Your task to perform on an android device: uninstall "Roku - Official Remote Control" Image 0: 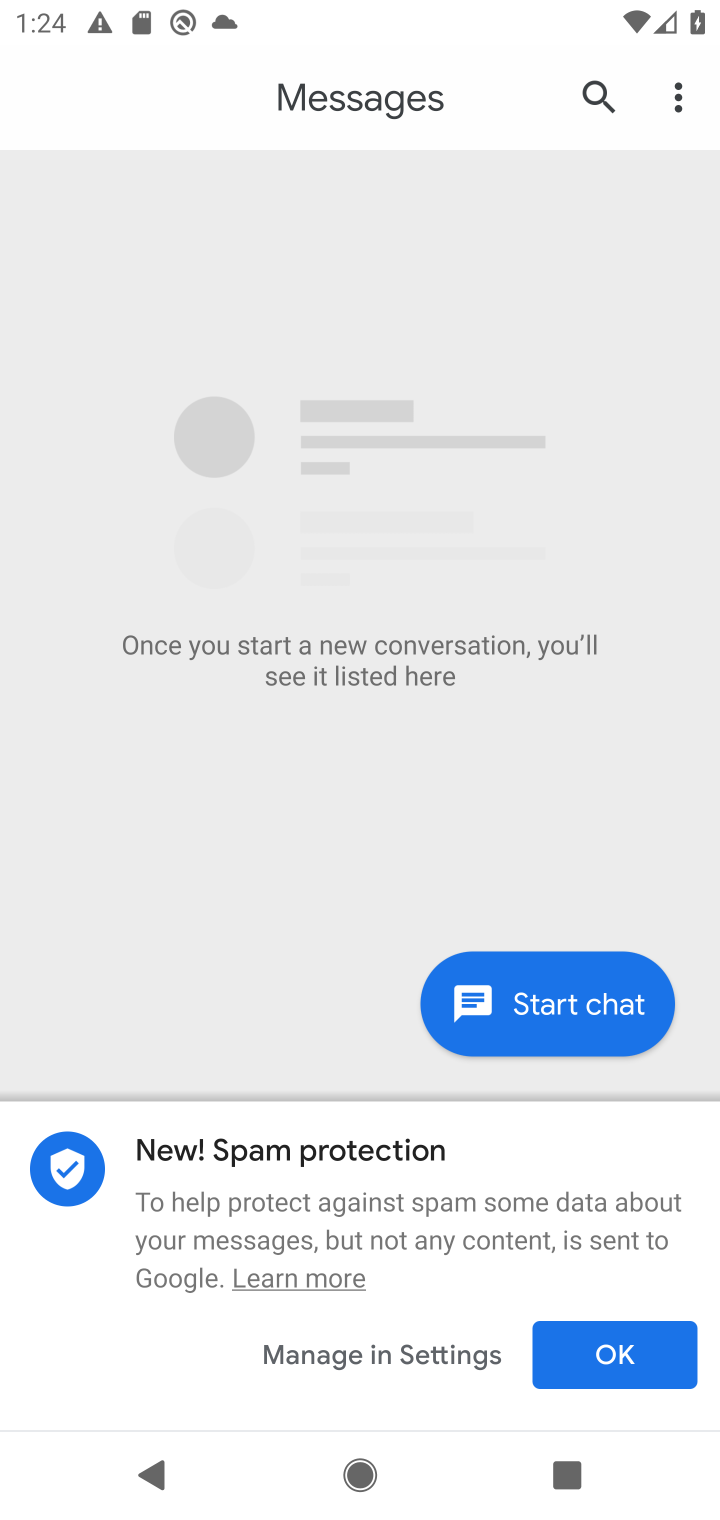
Step 0: press home button
Your task to perform on an android device: uninstall "Roku - Official Remote Control" Image 1: 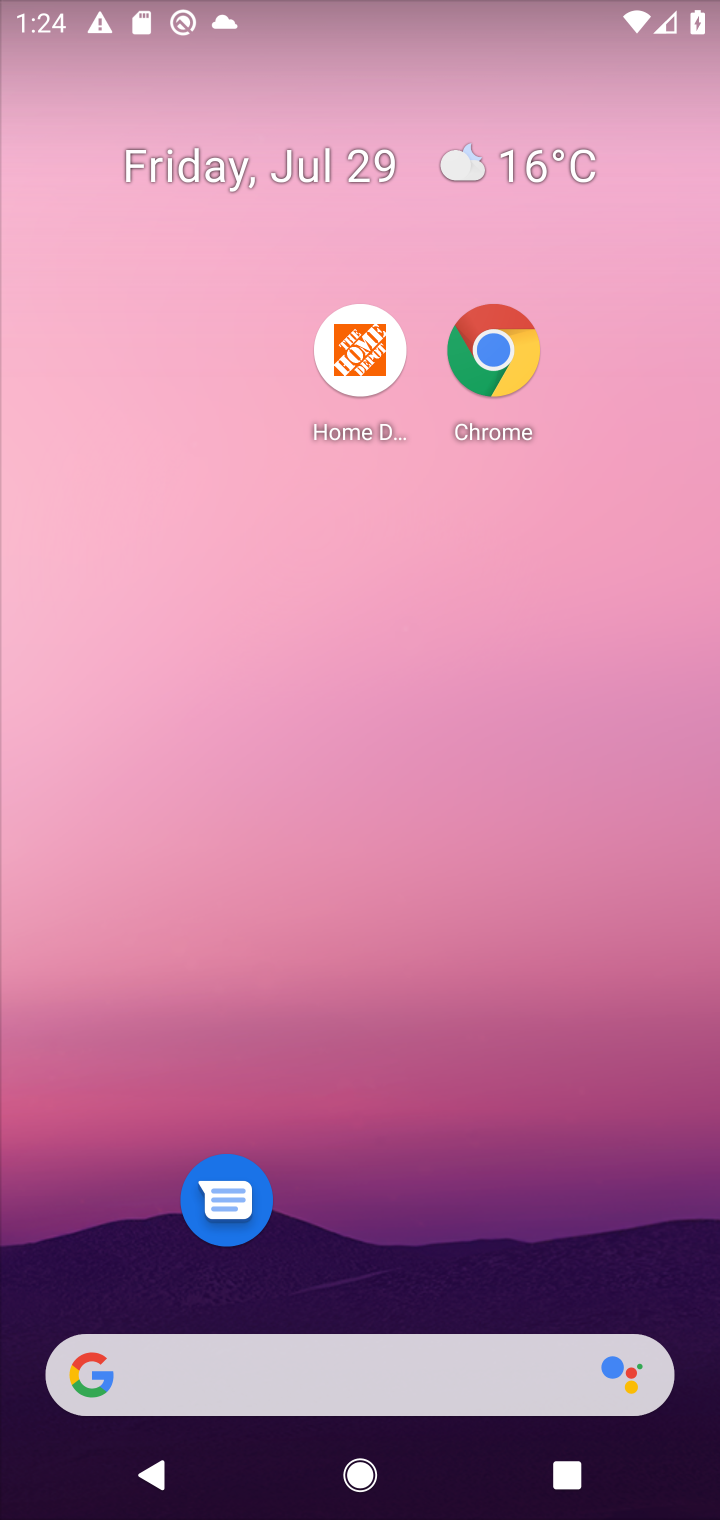
Step 1: drag from (520, 1209) to (585, 16)
Your task to perform on an android device: uninstall "Roku - Official Remote Control" Image 2: 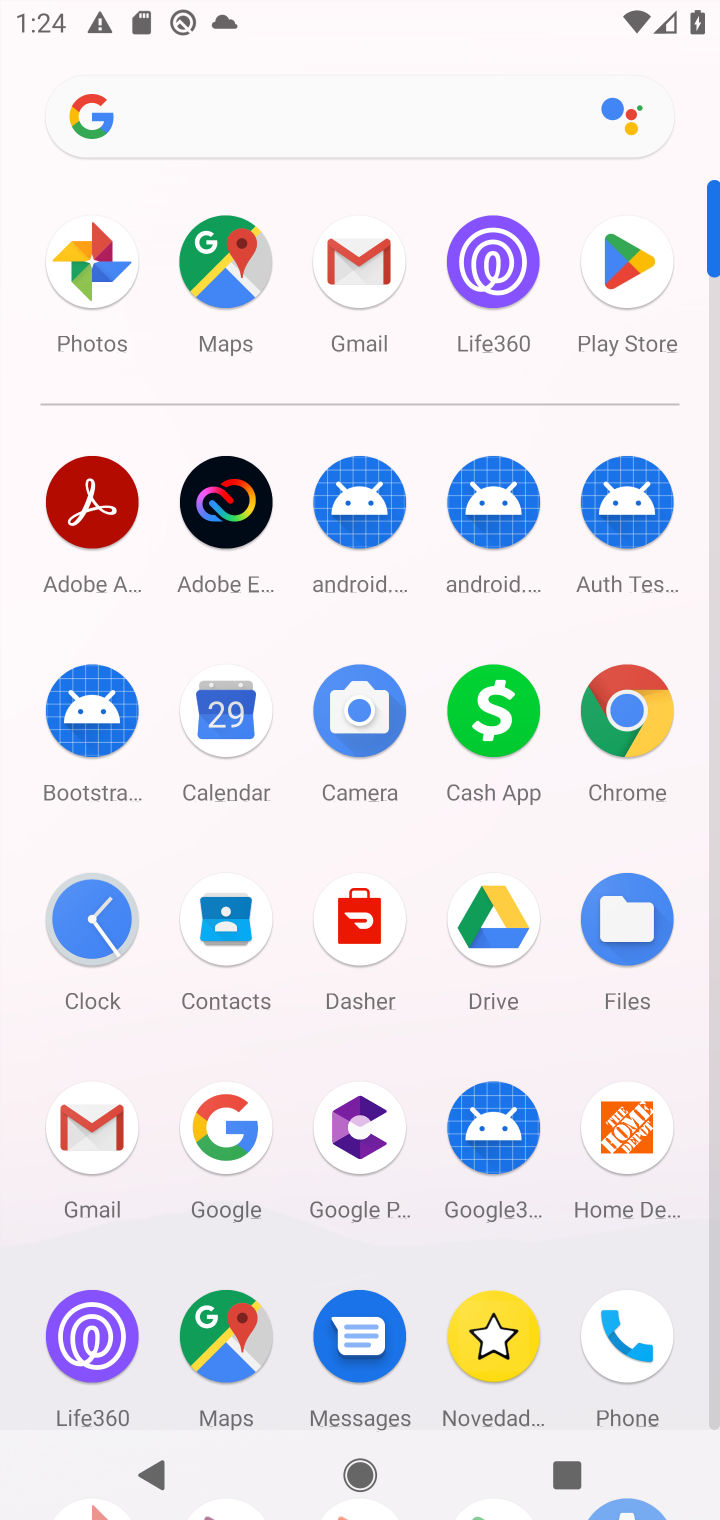
Step 2: click (624, 264)
Your task to perform on an android device: uninstall "Roku - Official Remote Control" Image 3: 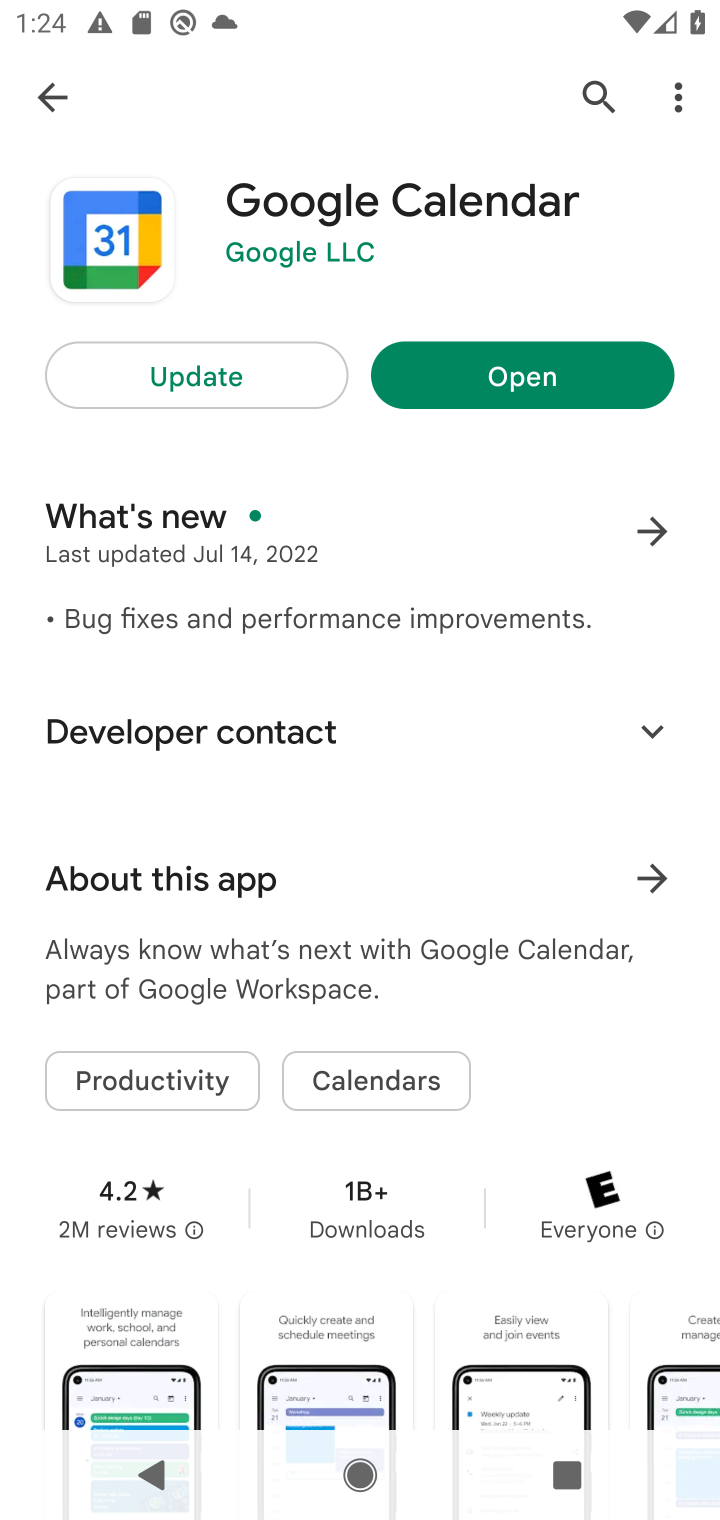
Step 3: click (604, 102)
Your task to perform on an android device: uninstall "Roku - Official Remote Control" Image 4: 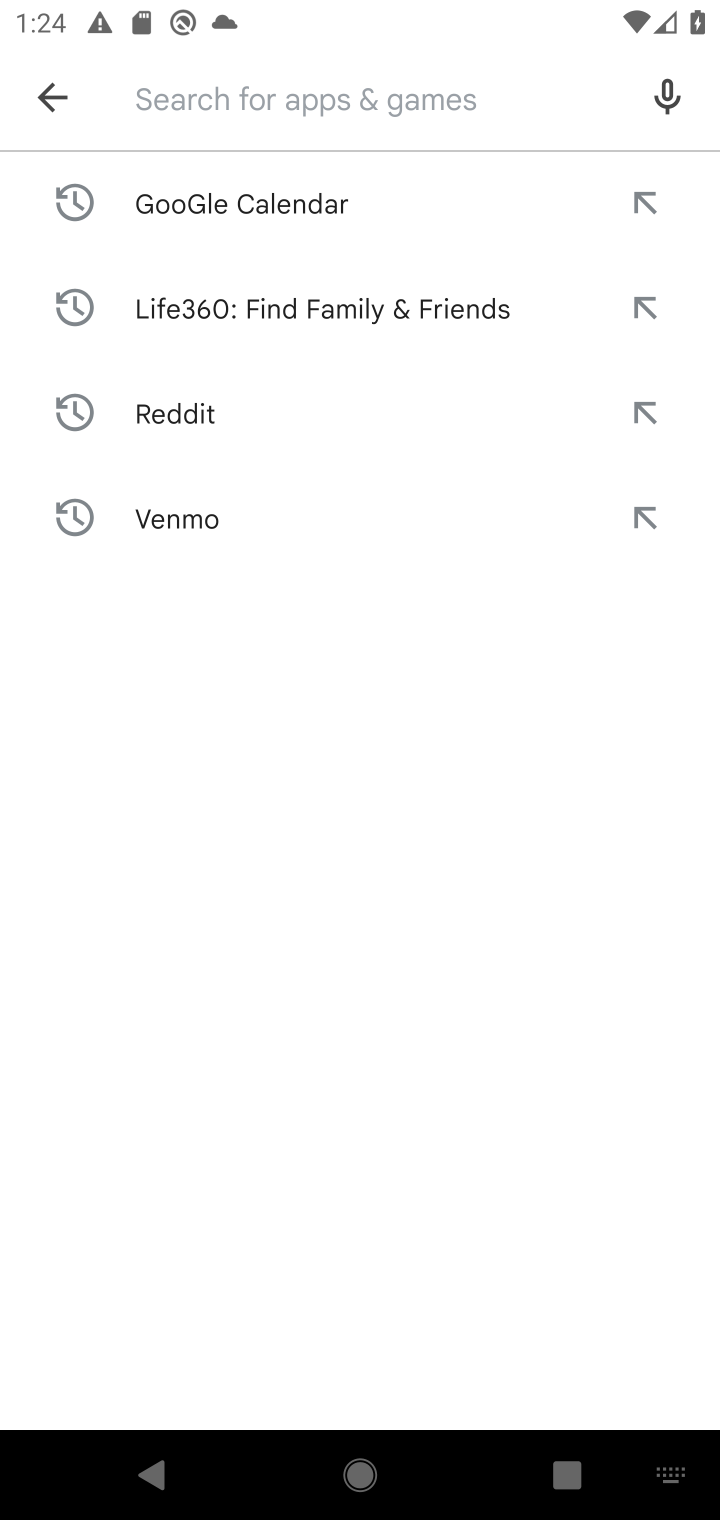
Step 4: click (496, 87)
Your task to perform on an android device: uninstall "Roku - Official Remote Control" Image 5: 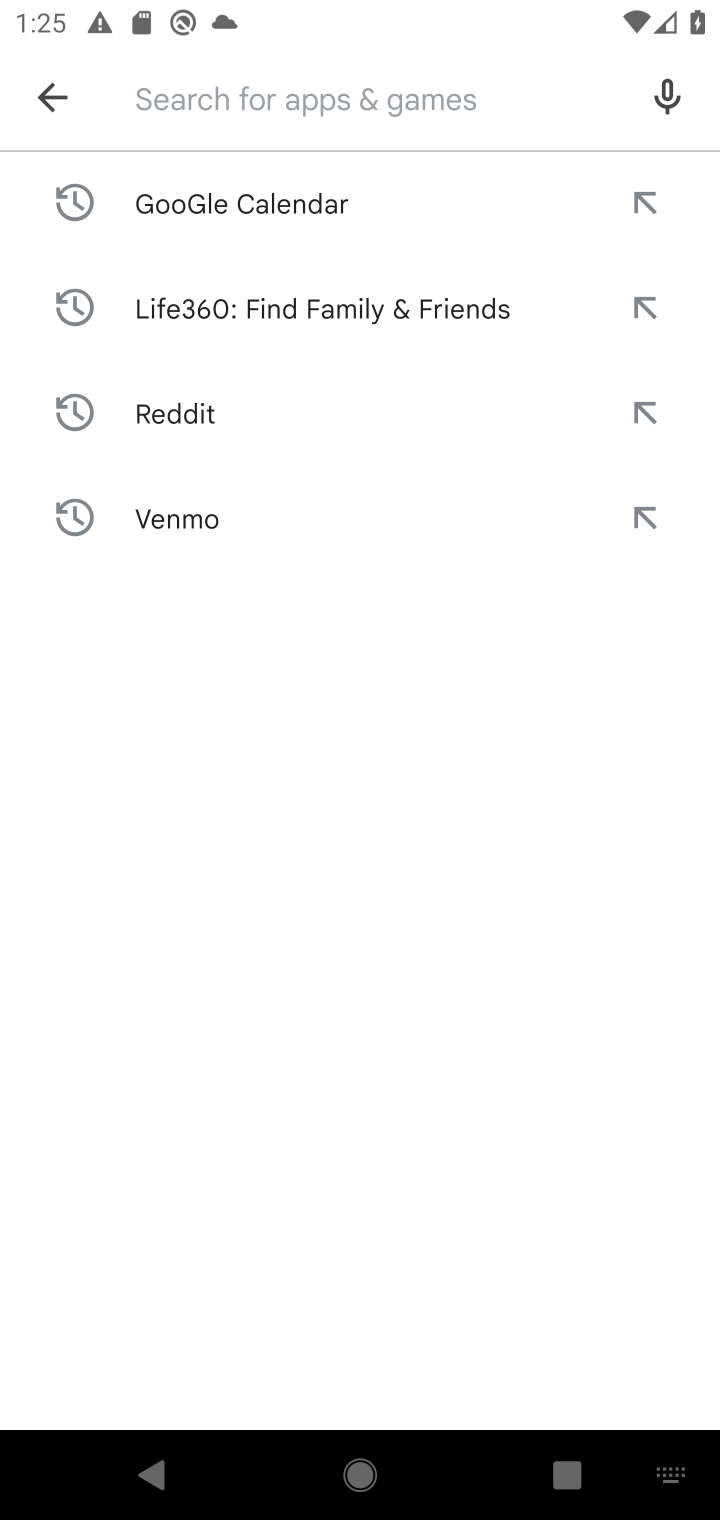
Step 5: type "Roku - Official Remote Control"
Your task to perform on an android device: uninstall "Roku - Official Remote Control" Image 6: 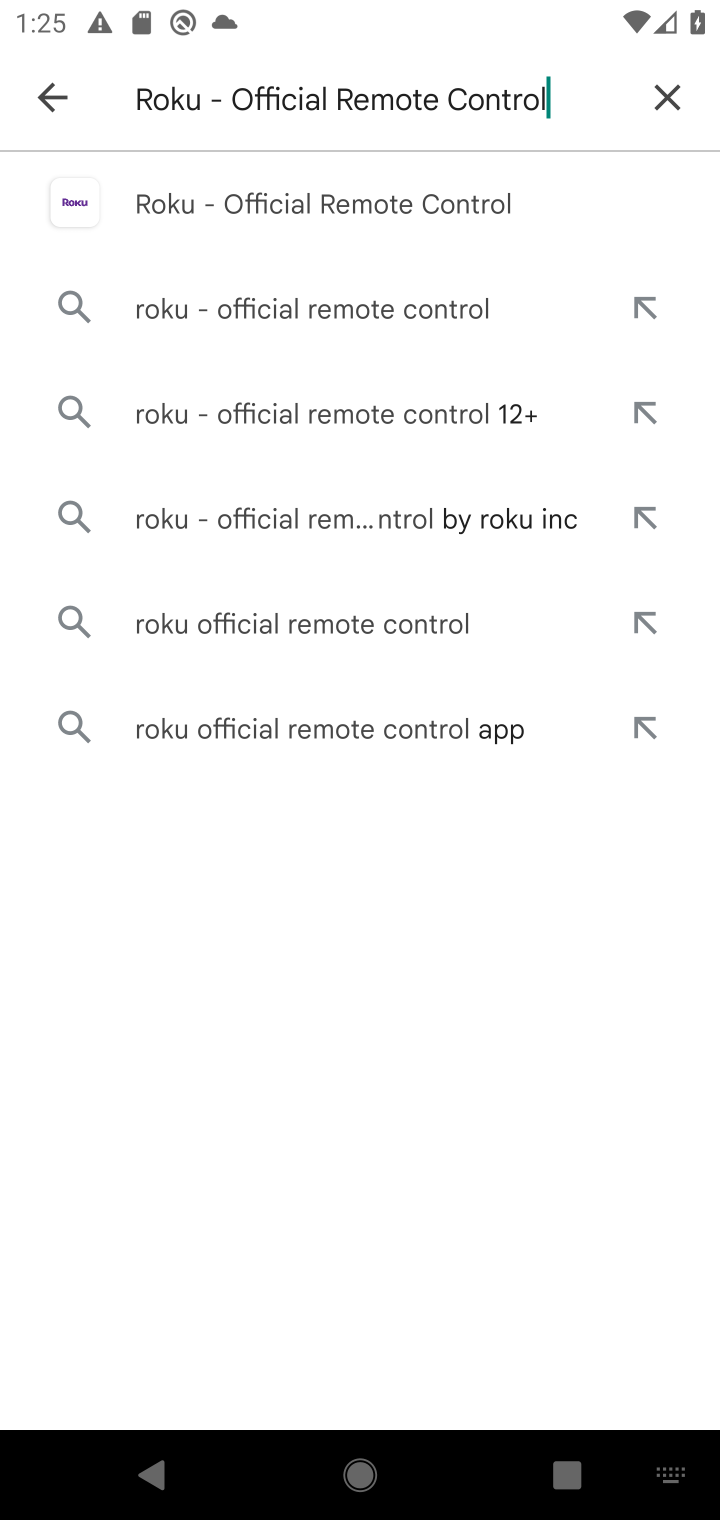
Step 6: press enter
Your task to perform on an android device: uninstall "Roku - Official Remote Control" Image 7: 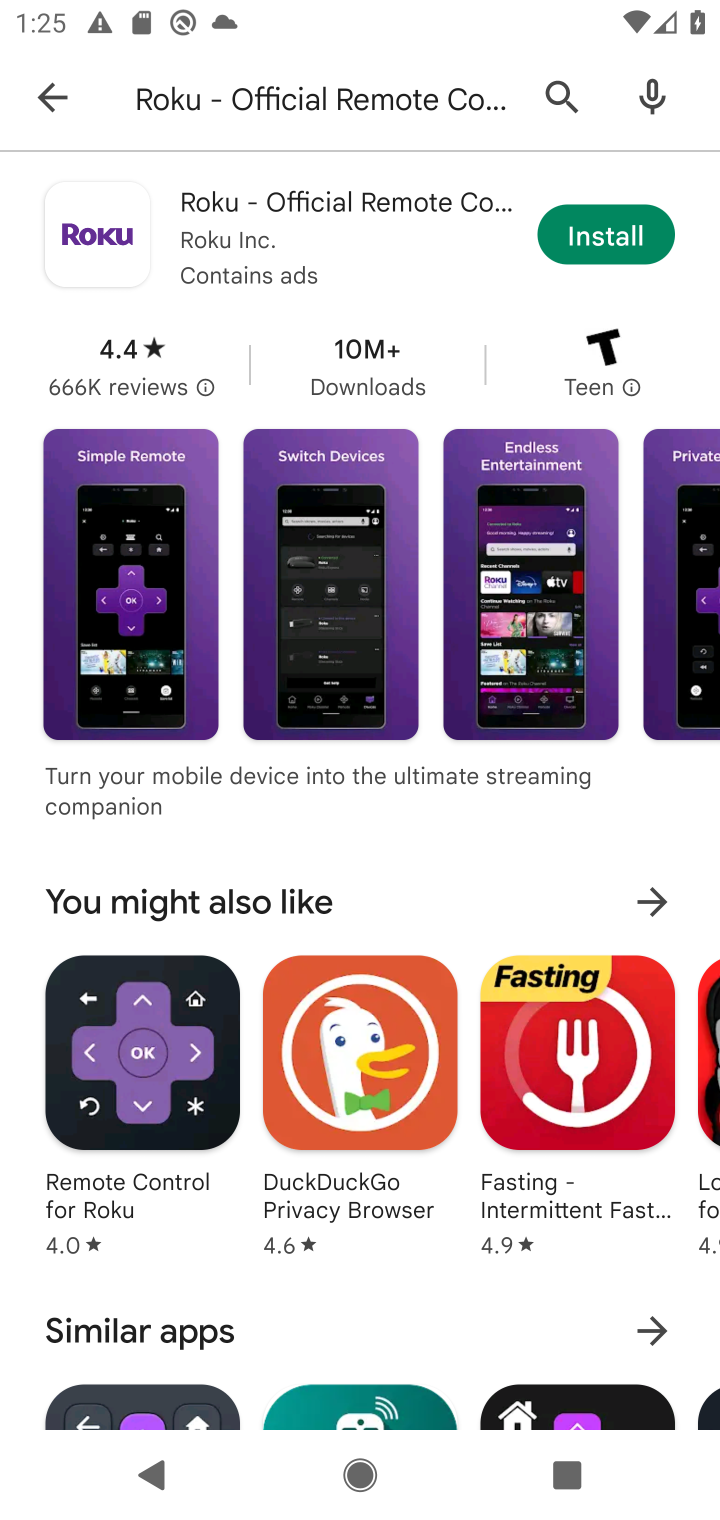
Step 7: task complete